Your task to perform on an android device: Go to Maps Image 0: 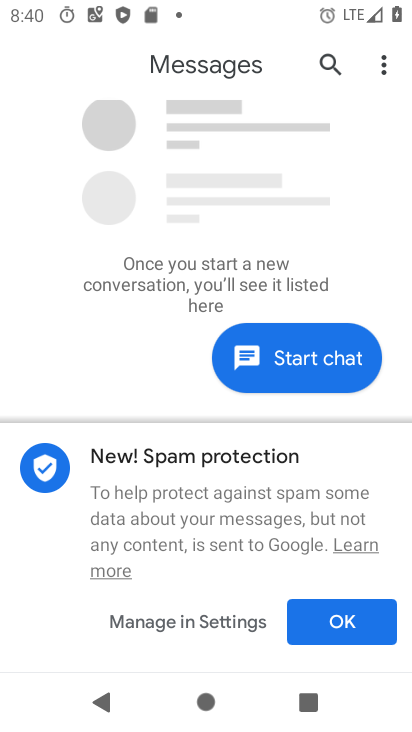
Step 0: press home button
Your task to perform on an android device: Go to Maps Image 1: 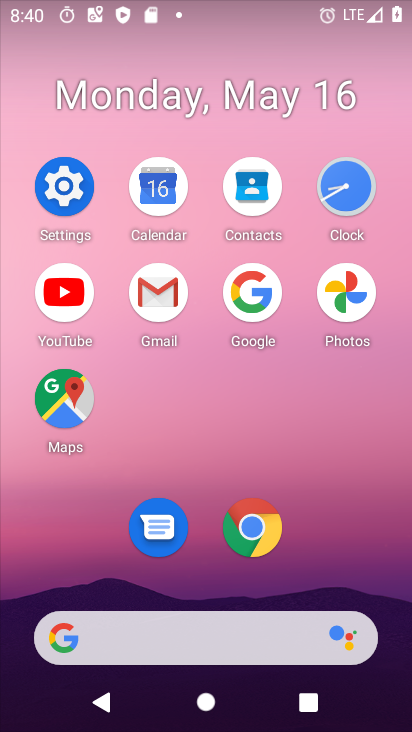
Step 1: click (53, 397)
Your task to perform on an android device: Go to Maps Image 2: 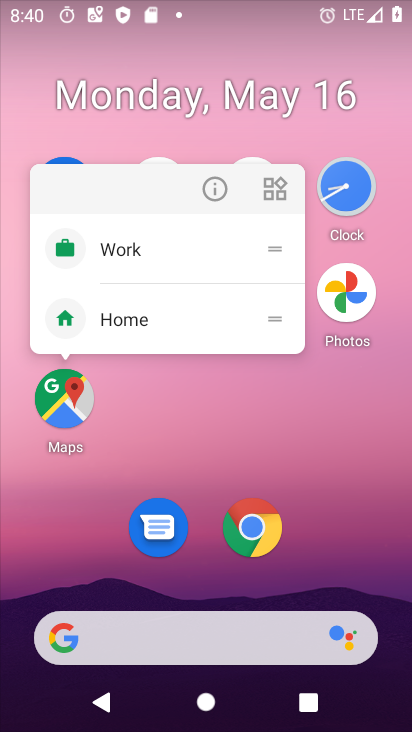
Step 2: click (74, 375)
Your task to perform on an android device: Go to Maps Image 3: 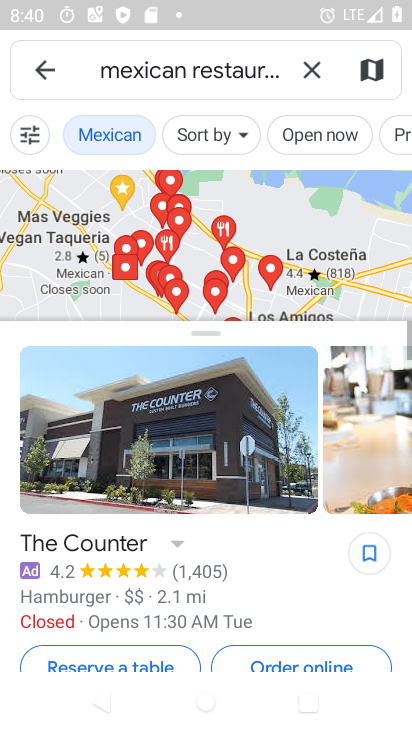
Step 3: task complete